Your task to perform on an android device: Turn on the flashlight Image 0: 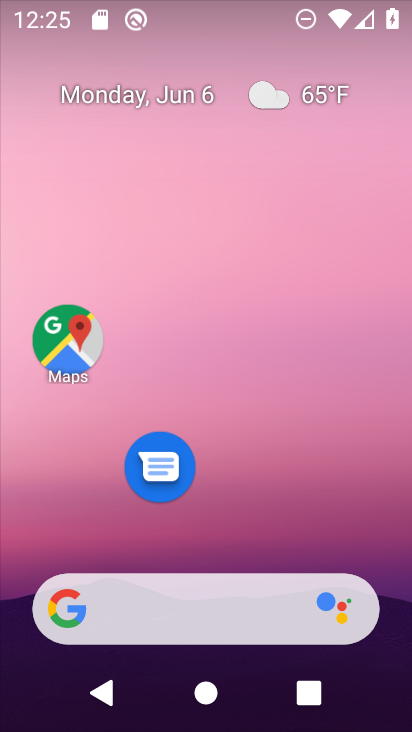
Step 0: drag from (362, 13) to (372, 500)
Your task to perform on an android device: Turn on the flashlight Image 1: 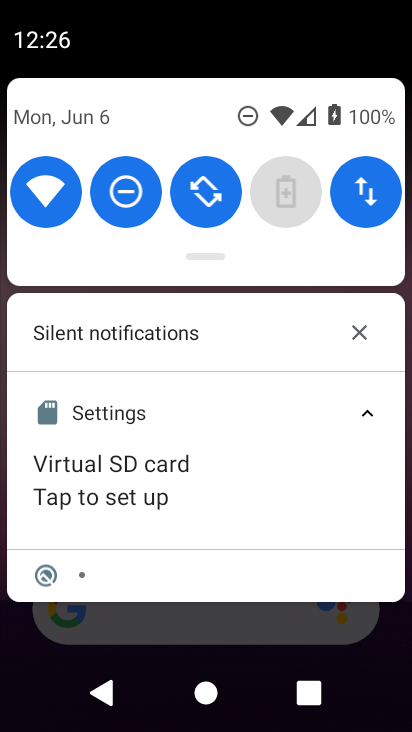
Step 1: task complete